Your task to perform on an android device: set the timer Image 0: 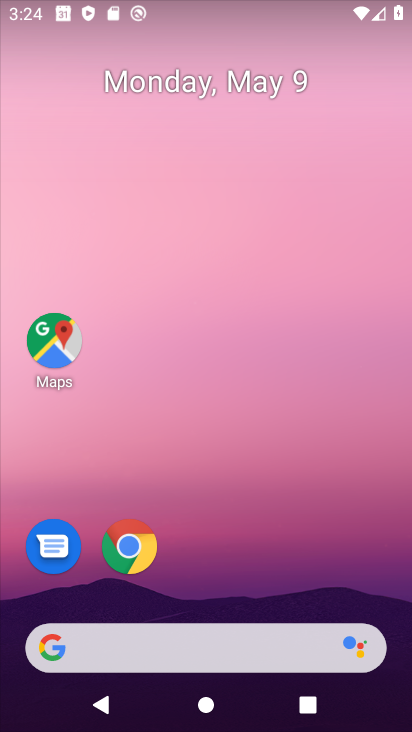
Step 0: drag from (236, 543) to (262, 200)
Your task to perform on an android device: set the timer Image 1: 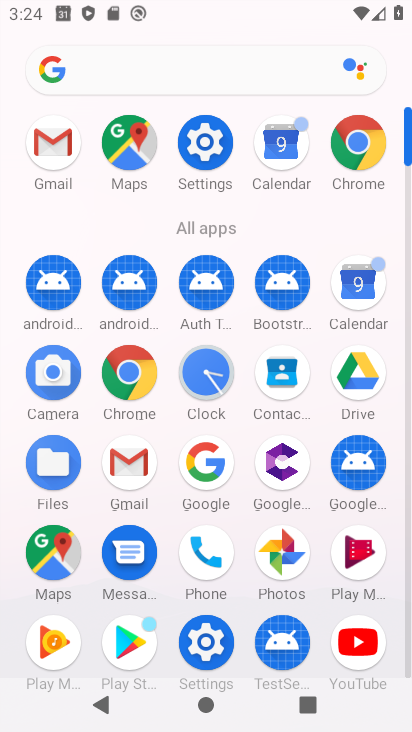
Step 1: click (203, 366)
Your task to perform on an android device: set the timer Image 2: 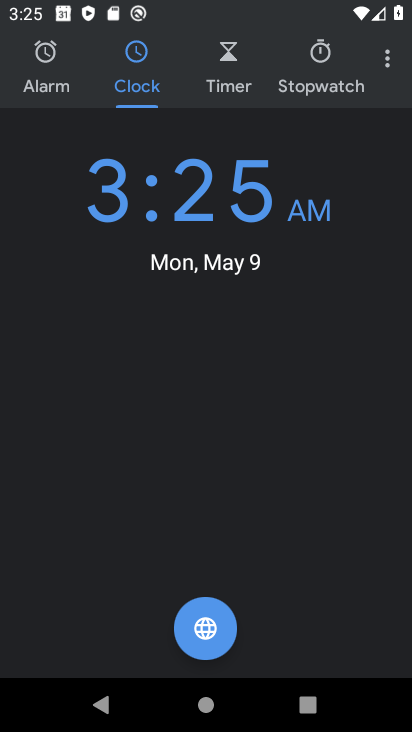
Step 2: click (238, 92)
Your task to perform on an android device: set the timer Image 3: 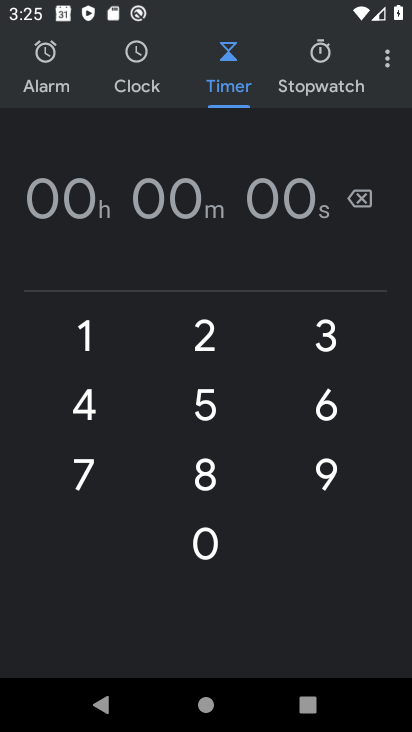
Step 3: click (101, 338)
Your task to perform on an android device: set the timer Image 4: 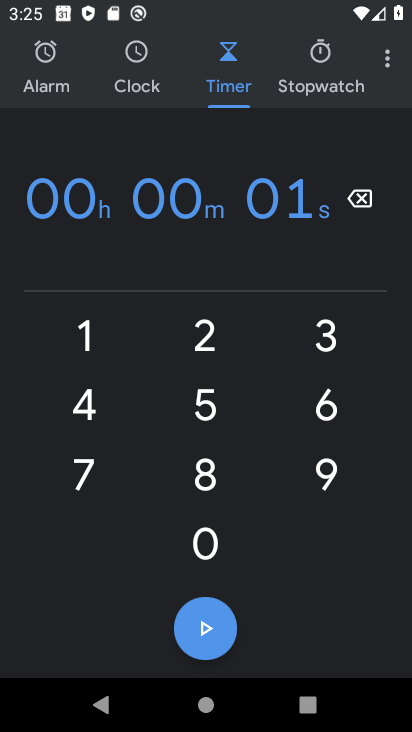
Step 4: click (100, 402)
Your task to perform on an android device: set the timer Image 5: 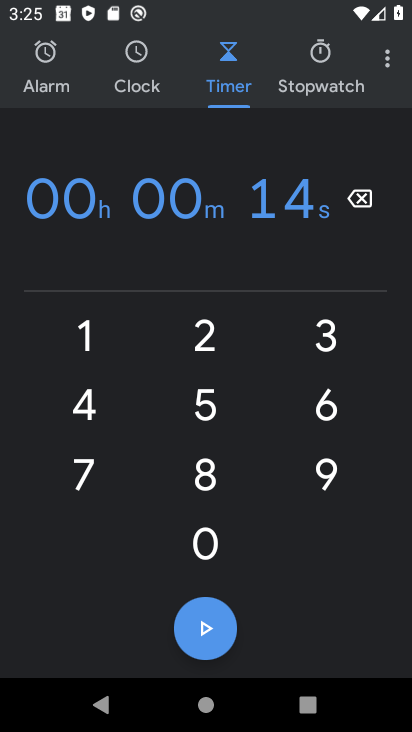
Step 5: click (200, 340)
Your task to perform on an android device: set the timer Image 6: 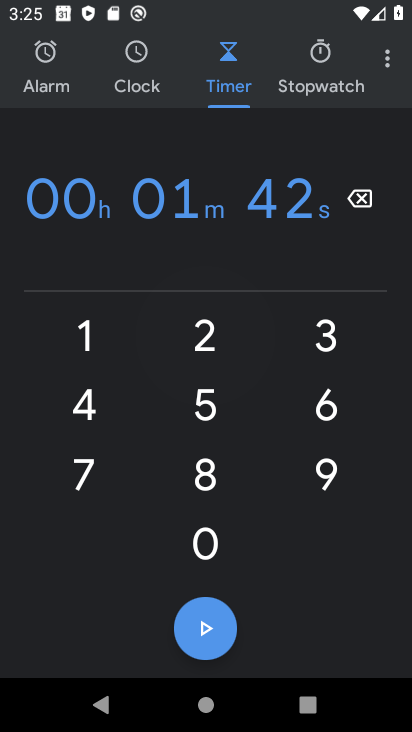
Step 6: click (88, 423)
Your task to perform on an android device: set the timer Image 7: 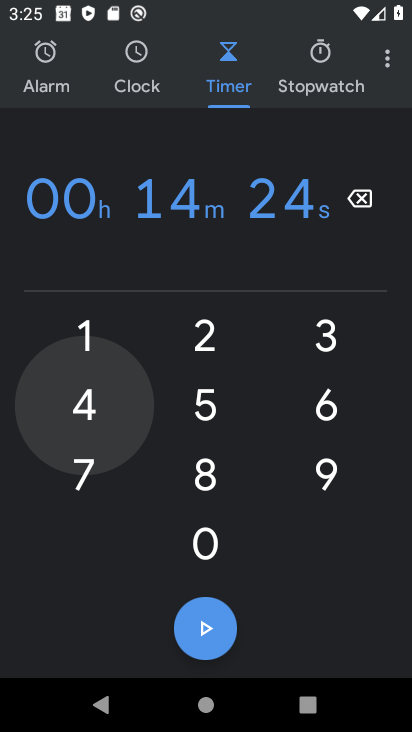
Step 7: click (193, 346)
Your task to perform on an android device: set the timer Image 8: 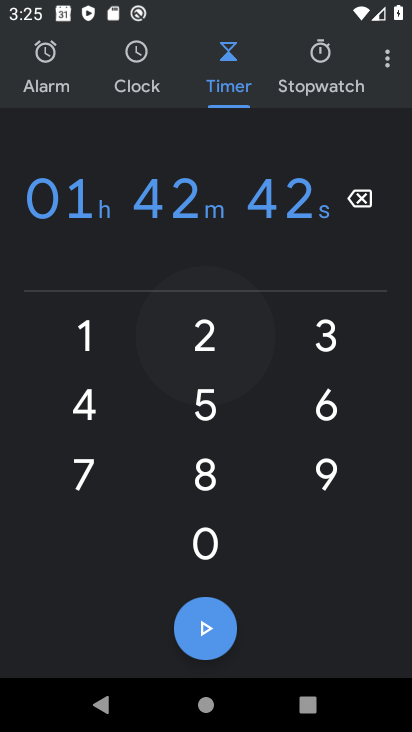
Step 8: click (115, 410)
Your task to perform on an android device: set the timer Image 9: 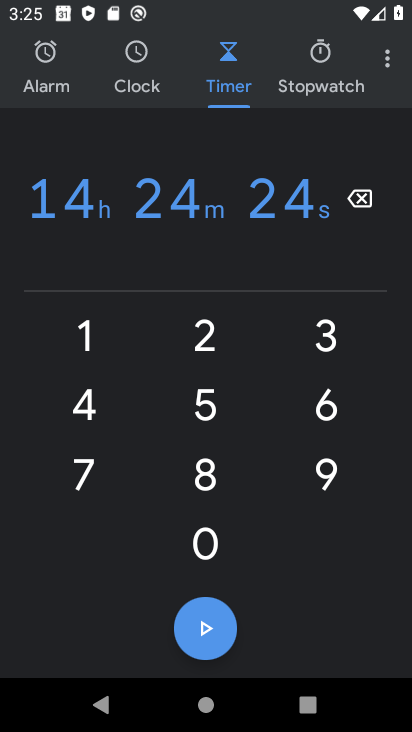
Step 9: click (214, 612)
Your task to perform on an android device: set the timer Image 10: 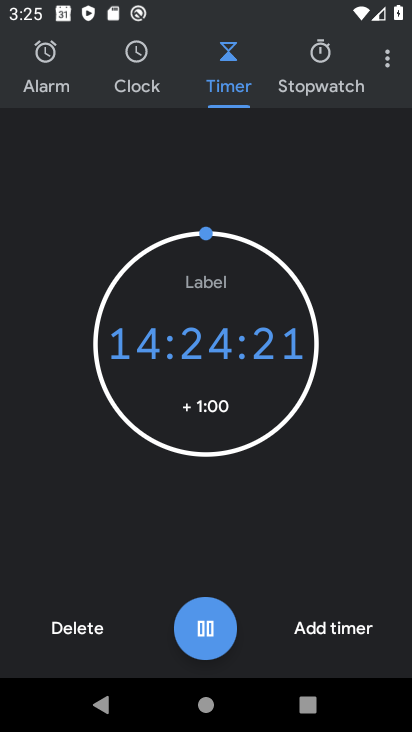
Step 10: task complete